Your task to perform on an android device: find snoozed emails in the gmail app Image 0: 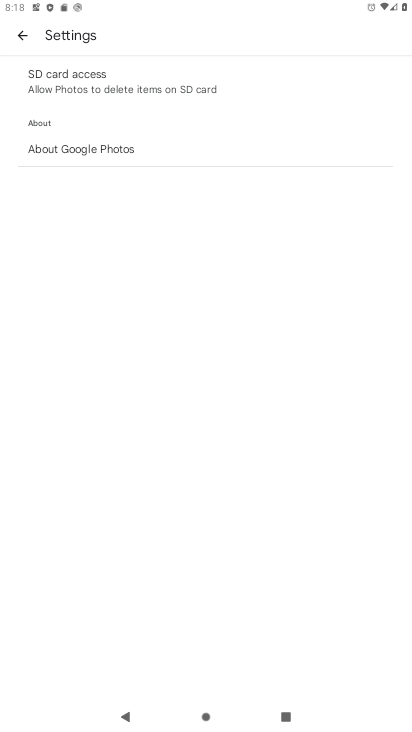
Step 0: press home button
Your task to perform on an android device: find snoozed emails in the gmail app Image 1: 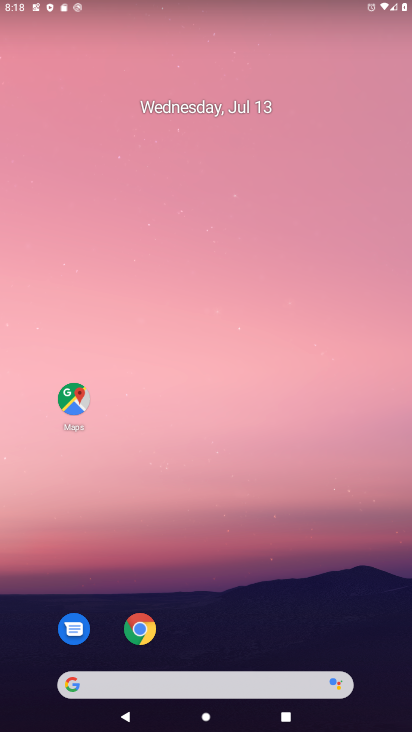
Step 1: drag from (262, 533) to (324, 85)
Your task to perform on an android device: find snoozed emails in the gmail app Image 2: 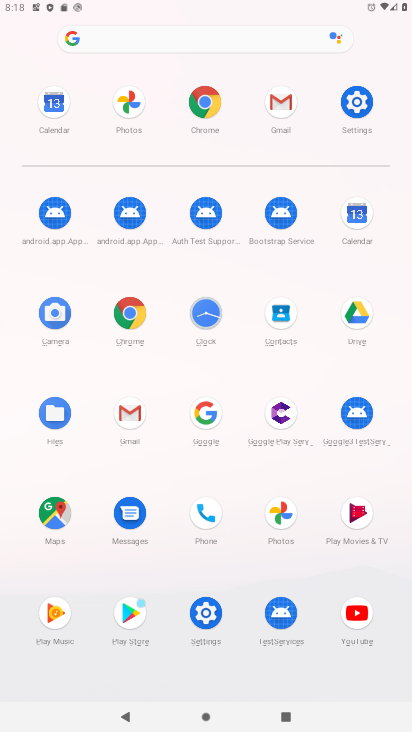
Step 2: click (260, 117)
Your task to perform on an android device: find snoozed emails in the gmail app Image 3: 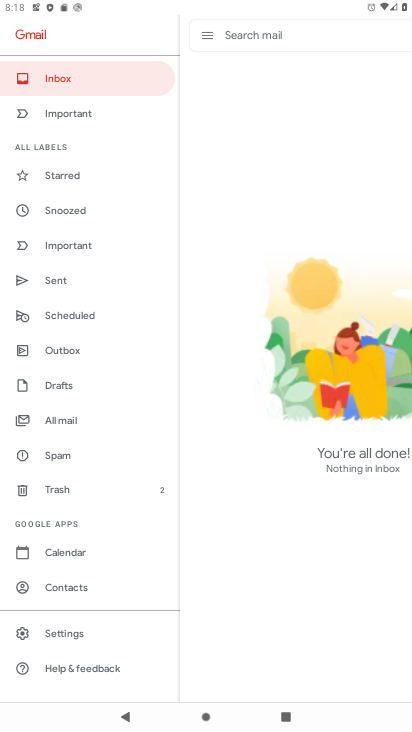
Step 3: click (74, 210)
Your task to perform on an android device: find snoozed emails in the gmail app Image 4: 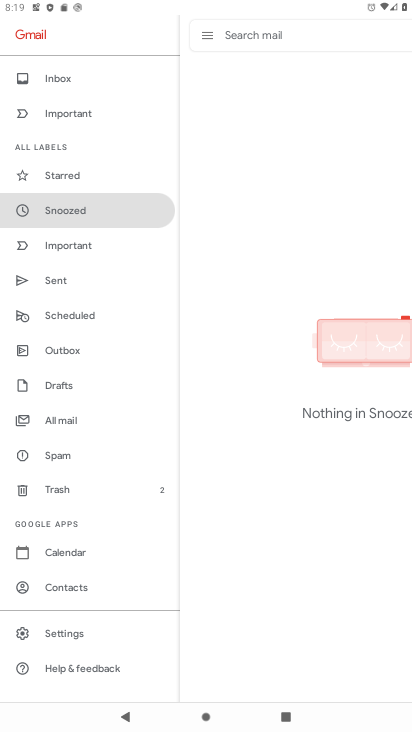
Step 4: task complete